Your task to perform on an android device: turn on translation in the chrome app Image 0: 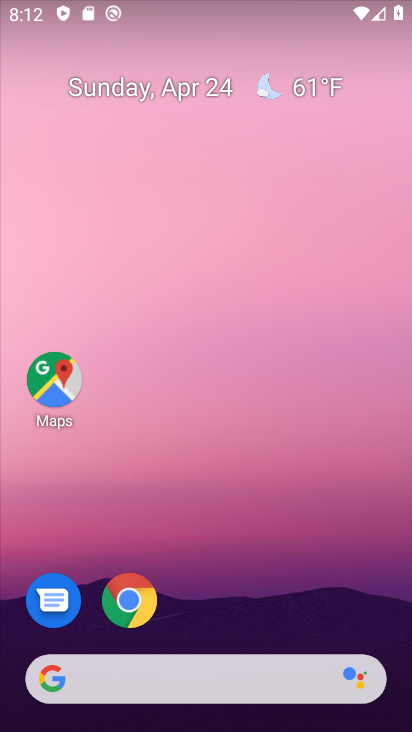
Step 0: click (128, 606)
Your task to perform on an android device: turn on translation in the chrome app Image 1: 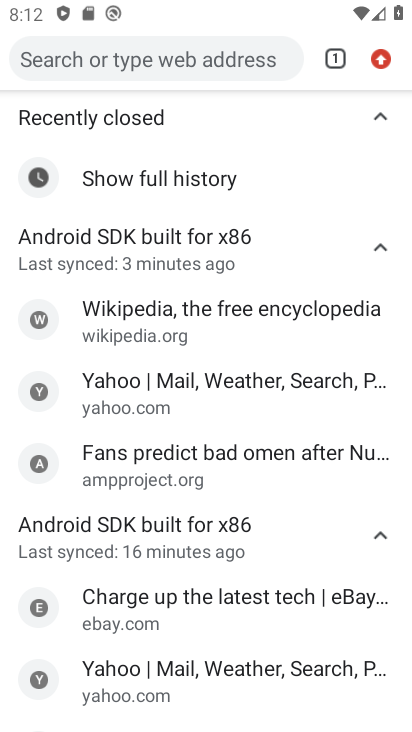
Step 1: drag from (381, 59) to (225, 570)
Your task to perform on an android device: turn on translation in the chrome app Image 2: 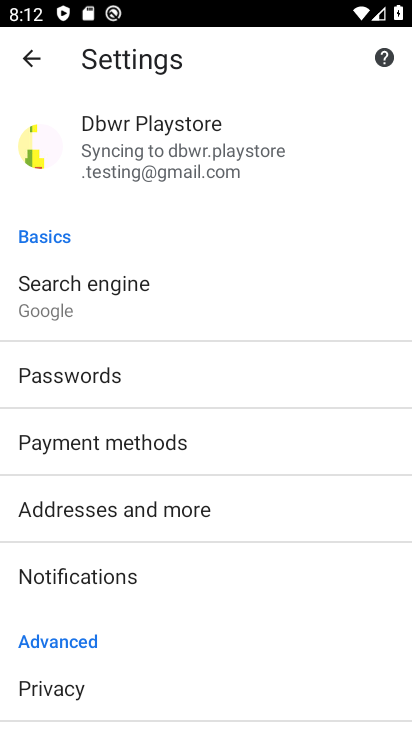
Step 2: drag from (184, 687) to (186, 422)
Your task to perform on an android device: turn on translation in the chrome app Image 3: 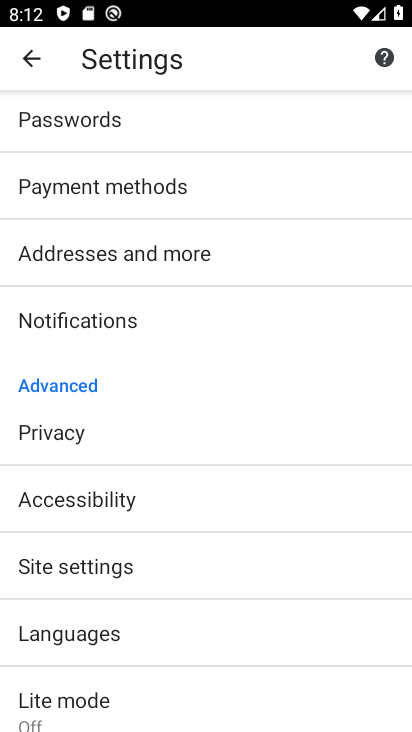
Step 3: click (96, 632)
Your task to perform on an android device: turn on translation in the chrome app Image 4: 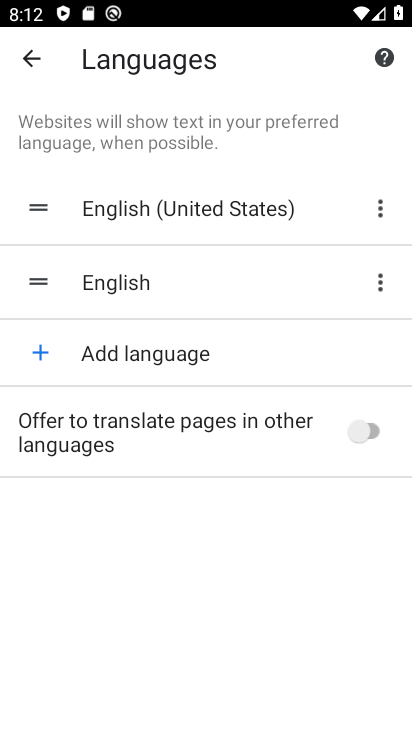
Step 4: click (375, 428)
Your task to perform on an android device: turn on translation in the chrome app Image 5: 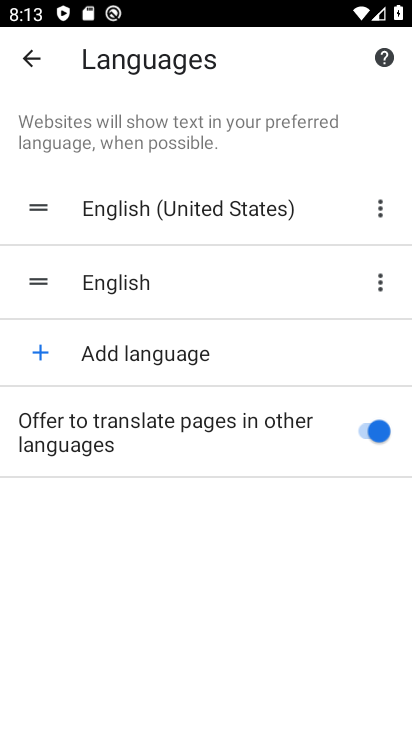
Step 5: task complete